Your task to perform on an android device: When is my next appointment? Image 0: 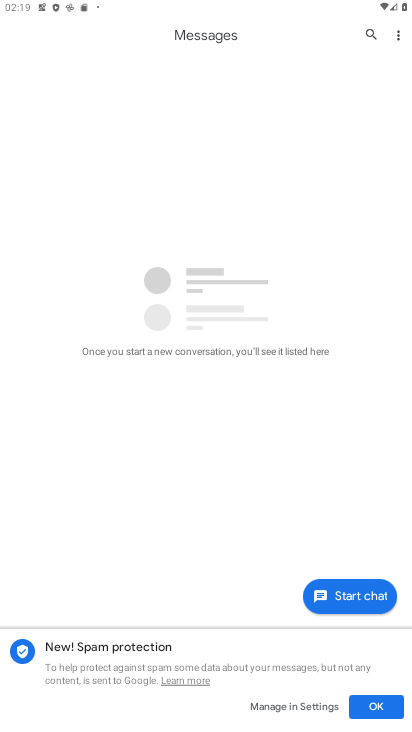
Step 0: press home button
Your task to perform on an android device: When is my next appointment? Image 1: 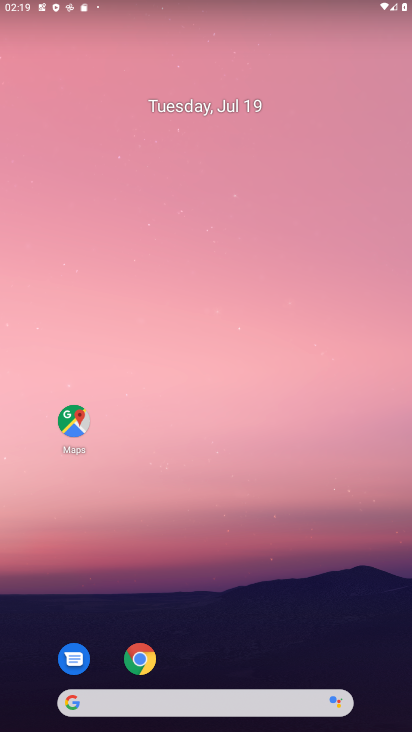
Step 1: drag from (263, 645) to (246, 336)
Your task to perform on an android device: When is my next appointment? Image 2: 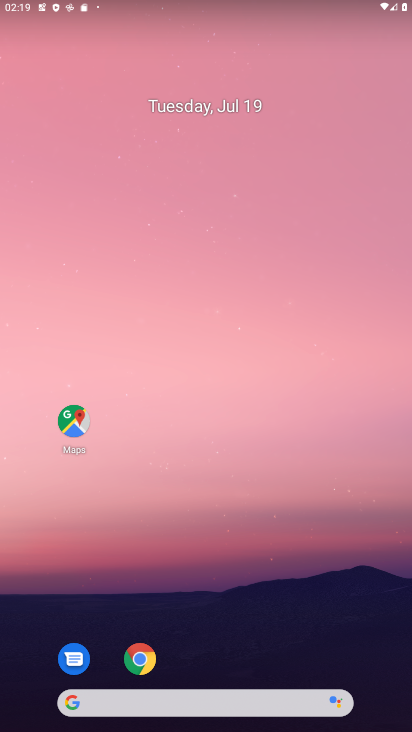
Step 2: drag from (294, 578) to (201, 129)
Your task to perform on an android device: When is my next appointment? Image 3: 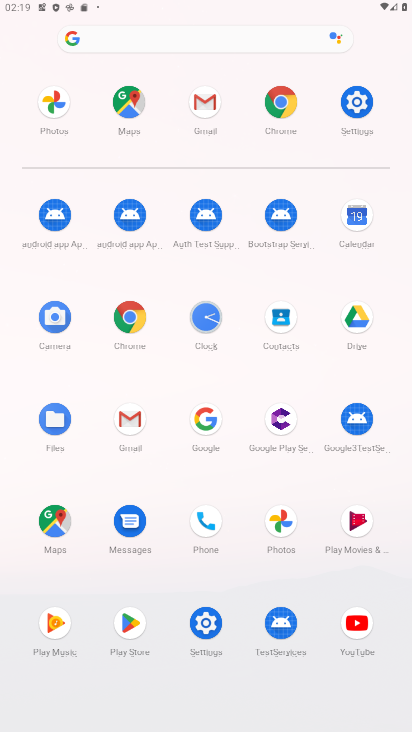
Step 3: click (360, 223)
Your task to perform on an android device: When is my next appointment? Image 4: 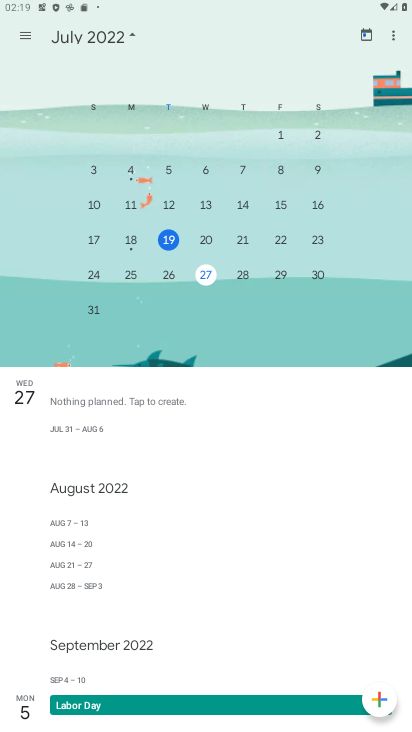
Step 4: click (129, 32)
Your task to perform on an android device: When is my next appointment? Image 5: 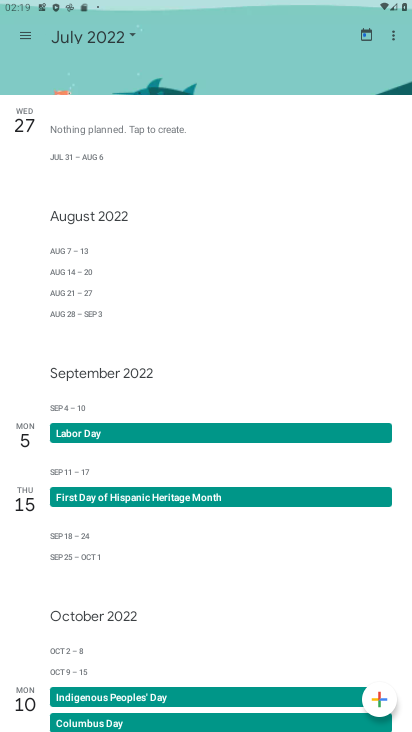
Step 5: task complete